Your task to perform on an android device: Empty the shopping cart on newegg. Add "usb-c to usb-a" to the cart on newegg, then select checkout. Image 0: 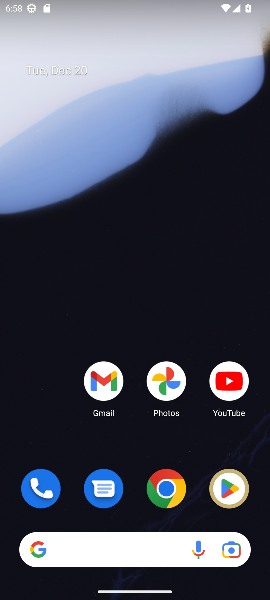
Step 0: press home button
Your task to perform on an android device: Empty the shopping cart on newegg. Add "usb-c to usb-a" to the cart on newegg, then select checkout. Image 1: 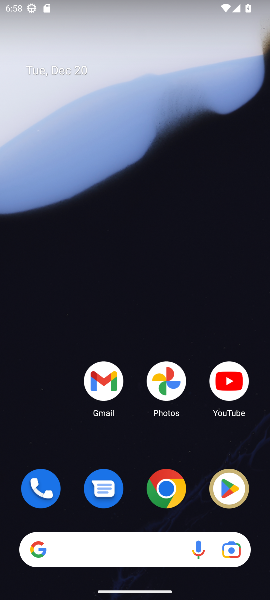
Step 1: drag from (61, 431) to (114, 0)
Your task to perform on an android device: Empty the shopping cart on newegg. Add "usb-c to usb-a" to the cart on newegg, then select checkout. Image 2: 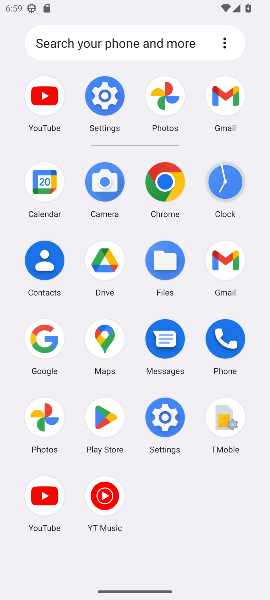
Step 2: click (37, 345)
Your task to perform on an android device: Empty the shopping cart on newegg. Add "usb-c to usb-a" to the cart on newegg, then select checkout. Image 3: 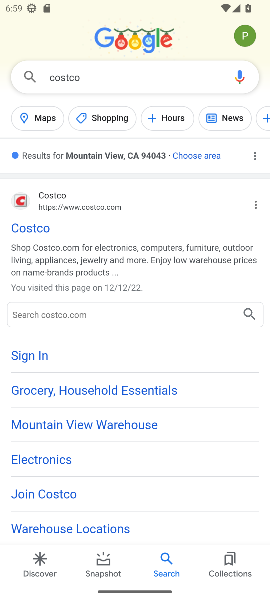
Step 3: click (117, 76)
Your task to perform on an android device: Empty the shopping cart on newegg. Add "usb-c to usb-a" to the cart on newegg, then select checkout. Image 4: 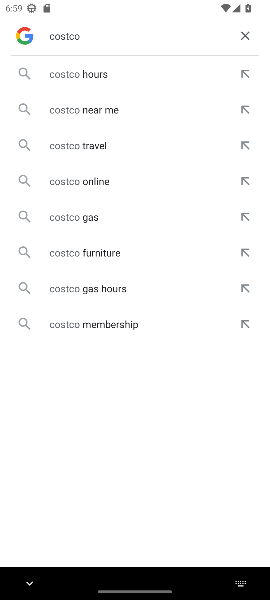
Step 4: click (244, 34)
Your task to perform on an android device: Empty the shopping cart on newegg. Add "usb-c to usb-a" to the cart on newegg, then select checkout. Image 5: 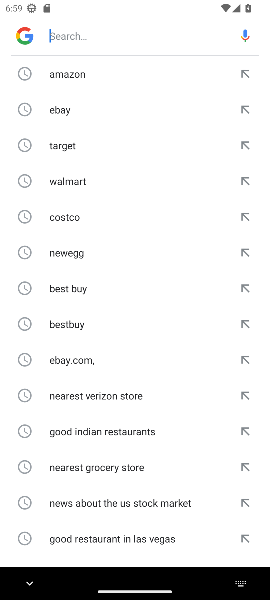
Step 5: type "newegg"
Your task to perform on an android device: Empty the shopping cart on newegg. Add "usb-c to usb-a" to the cart on newegg, then select checkout. Image 6: 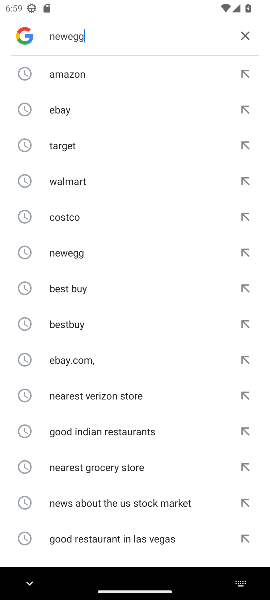
Step 6: press enter
Your task to perform on an android device: Empty the shopping cart on newegg. Add "usb-c to usb-a" to the cart on newegg, then select checkout. Image 7: 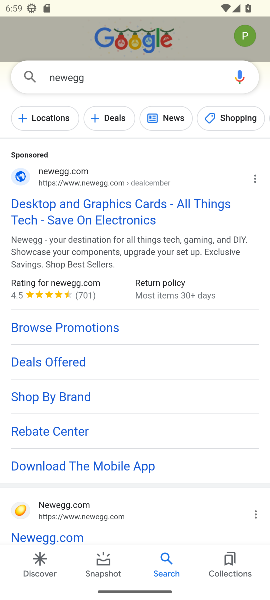
Step 7: drag from (132, 467) to (119, 240)
Your task to perform on an android device: Empty the shopping cart on newegg. Add "usb-c to usb-a" to the cart on newegg, then select checkout. Image 8: 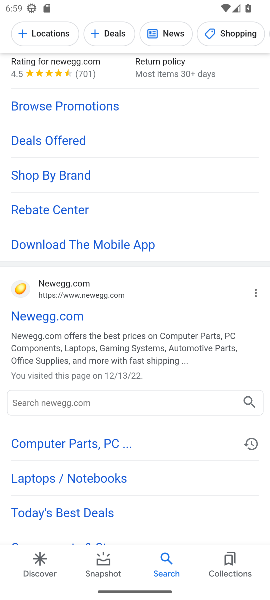
Step 8: click (34, 316)
Your task to perform on an android device: Empty the shopping cart on newegg. Add "usb-c to usb-a" to the cart on newegg, then select checkout. Image 9: 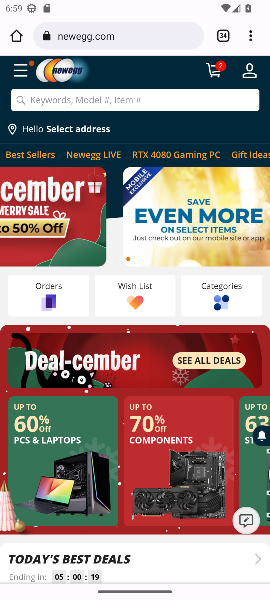
Step 9: click (214, 63)
Your task to perform on an android device: Empty the shopping cart on newegg. Add "usb-c to usb-a" to the cart on newegg, then select checkout. Image 10: 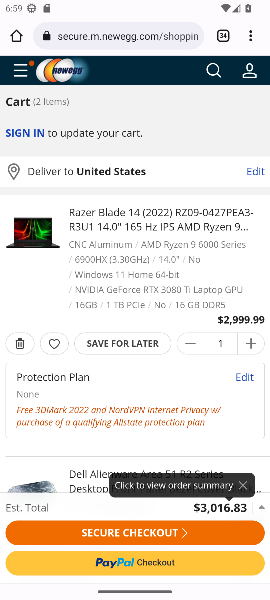
Step 10: click (16, 341)
Your task to perform on an android device: Empty the shopping cart on newegg. Add "usb-c to usb-a" to the cart on newegg, then select checkout. Image 11: 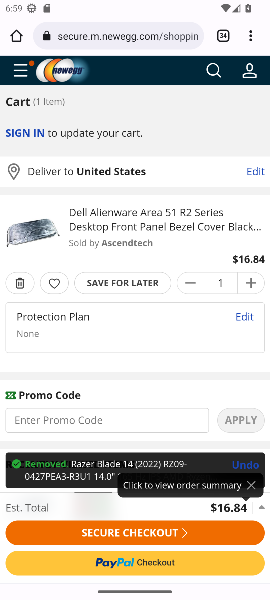
Step 11: click (18, 280)
Your task to perform on an android device: Empty the shopping cart on newegg. Add "usb-c to usb-a" to the cart on newegg, then select checkout. Image 12: 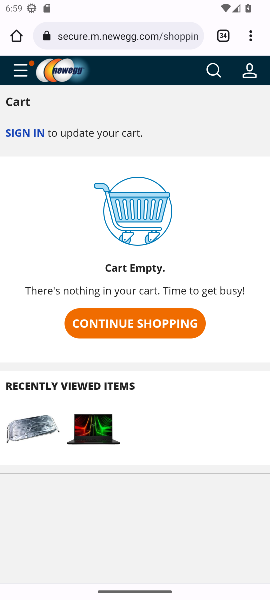
Step 12: click (210, 71)
Your task to perform on an android device: Empty the shopping cart on newegg. Add "usb-c to usb-a" to the cart on newegg, then select checkout. Image 13: 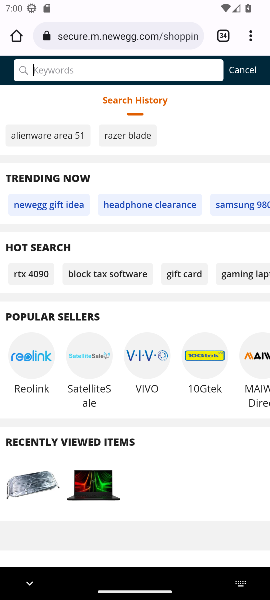
Step 13: type "usb-c to usb-a"
Your task to perform on an android device: Empty the shopping cart on newegg. Add "usb-c to usb-a" to the cart on newegg, then select checkout. Image 14: 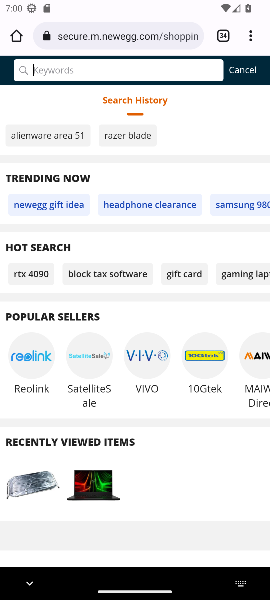
Step 14: press enter
Your task to perform on an android device: Empty the shopping cart on newegg. Add "usb-c to usb-a" to the cart on newegg, then select checkout. Image 15: 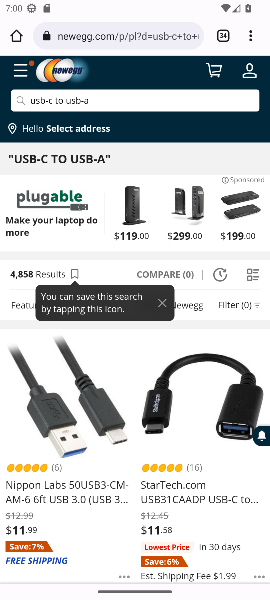
Step 15: drag from (136, 509) to (146, 343)
Your task to perform on an android device: Empty the shopping cart on newegg. Add "usb-c to usb-a" to the cart on newegg, then select checkout. Image 16: 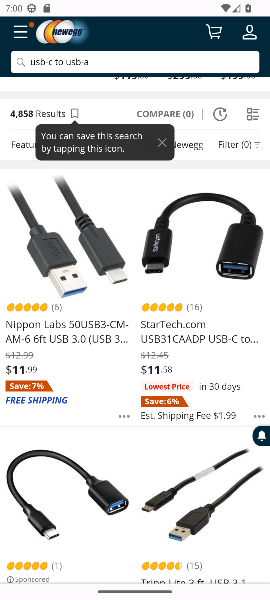
Step 16: drag from (138, 478) to (153, 258)
Your task to perform on an android device: Empty the shopping cart on newegg. Add "usb-c to usb-a" to the cart on newegg, then select checkout. Image 17: 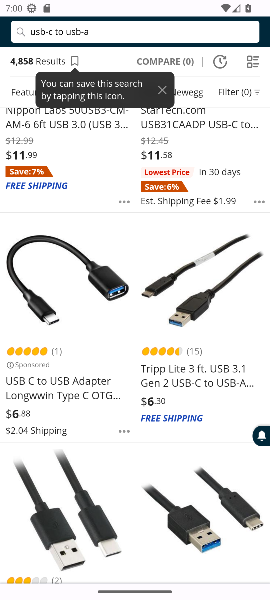
Step 17: drag from (189, 461) to (196, 322)
Your task to perform on an android device: Empty the shopping cart on newegg. Add "usb-c to usb-a" to the cart on newegg, then select checkout. Image 18: 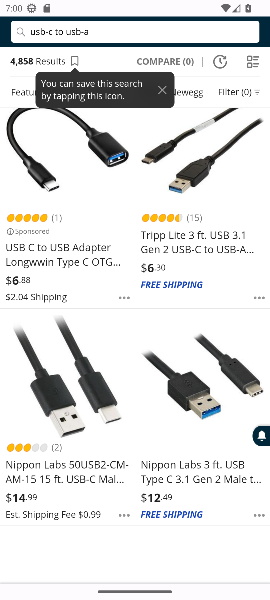
Step 18: drag from (124, 486) to (110, 253)
Your task to perform on an android device: Empty the shopping cart on newegg. Add "usb-c to usb-a" to the cart on newegg, then select checkout. Image 19: 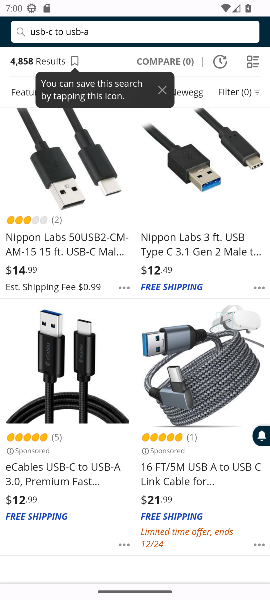
Step 19: click (64, 470)
Your task to perform on an android device: Empty the shopping cart on newegg. Add "usb-c to usb-a" to the cart on newegg, then select checkout. Image 20: 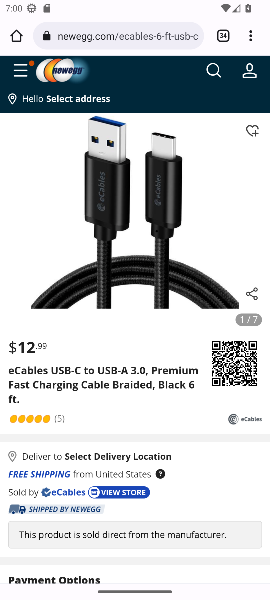
Step 20: click (120, 570)
Your task to perform on an android device: Empty the shopping cart on newegg. Add "usb-c to usb-a" to the cart on newegg, then select checkout. Image 21: 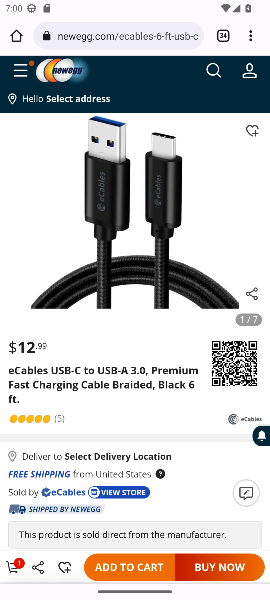
Step 21: click (12, 567)
Your task to perform on an android device: Empty the shopping cart on newegg. Add "usb-c to usb-a" to the cart on newegg, then select checkout. Image 22: 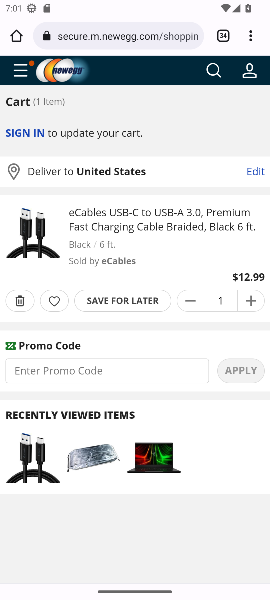
Step 22: drag from (125, 461) to (143, 224)
Your task to perform on an android device: Empty the shopping cart on newegg. Add "usb-c to usb-a" to the cart on newegg, then select checkout. Image 23: 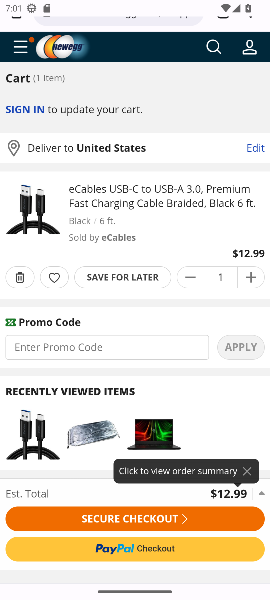
Step 23: click (135, 519)
Your task to perform on an android device: Empty the shopping cart on newegg. Add "usb-c to usb-a" to the cart on newegg, then select checkout. Image 24: 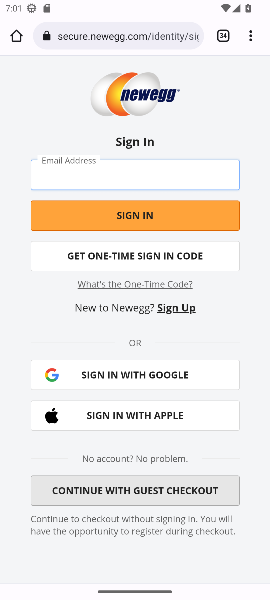
Step 24: task complete